Your task to perform on an android device: all mails in gmail Image 0: 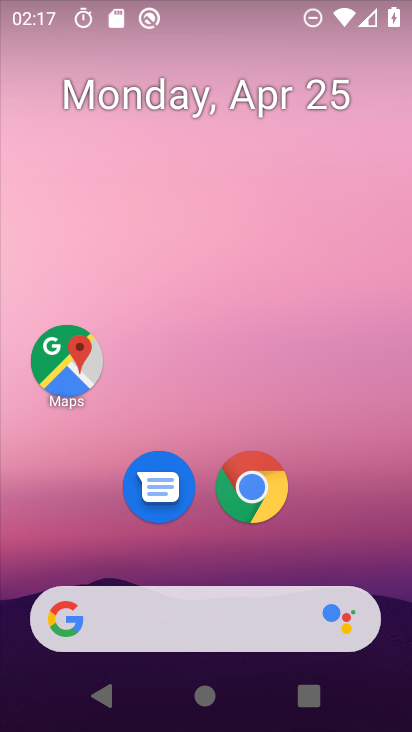
Step 0: drag from (323, 611) to (315, 160)
Your task to perform on an android device: all mails in gmail Image 1: 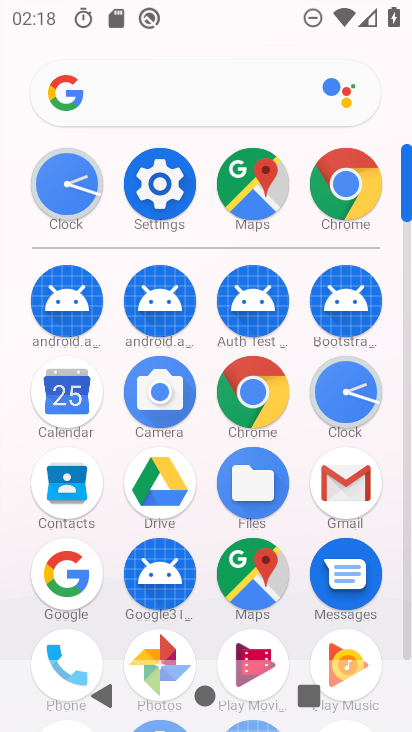
Step 1: click (338, 481)
Your task to perform on an android device: all mails in gmail Image 2: 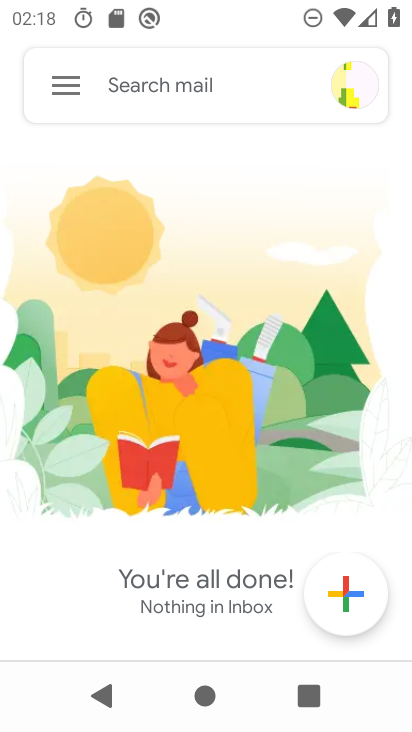
Step 2: click (50, 96)
Your task to perform on an android device: all mails in gmail Image 3: 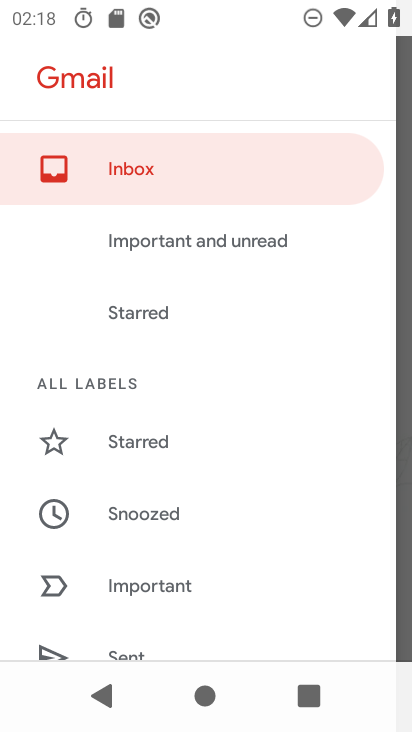
Step 3: drag from (154, 608) to (325, 233)
Your task to perform on an android device: all mails in gmail Image 4: 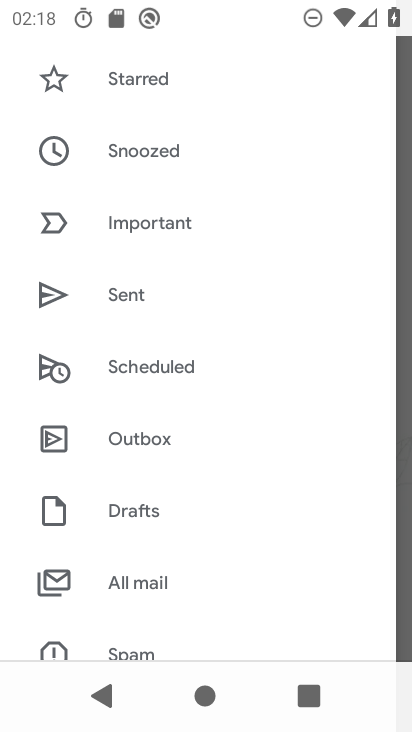
Step 4: click (171, 584)
Your task to perform on an android device: all mails in gmail Image 5: 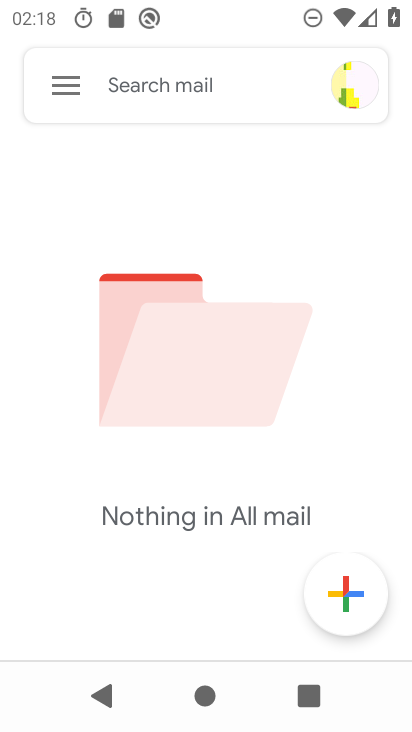
Step 5: task complete